Your task to perform on an android device: Show me productivity apps on the Play Store Image 0: 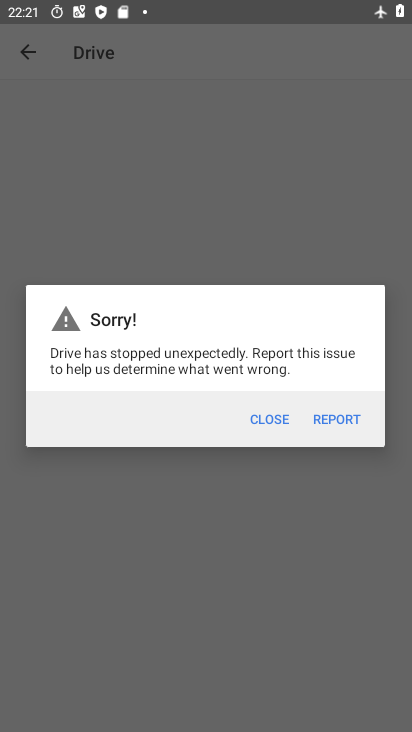
Step 0: press home button
Your task to perform on an android device: Show me productivity apps on the Play Store Image 1: 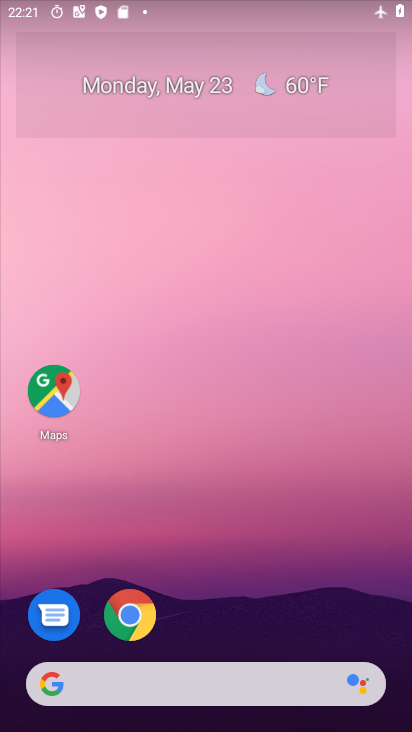
Step 1: drag from (228, 615) to (242, 121)
Your task to perform on an android device: Show me productivity apps on the Play Store Image 2: 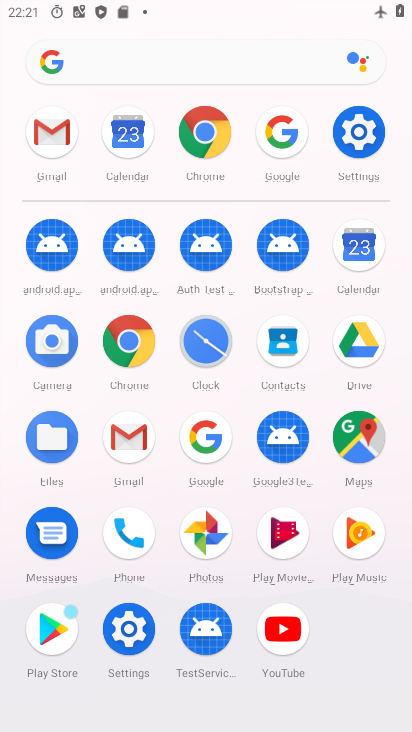
Step 2: click (52, 632)
Your task to perform on an android device: Show me productivity apps on the Play Store Image 3: 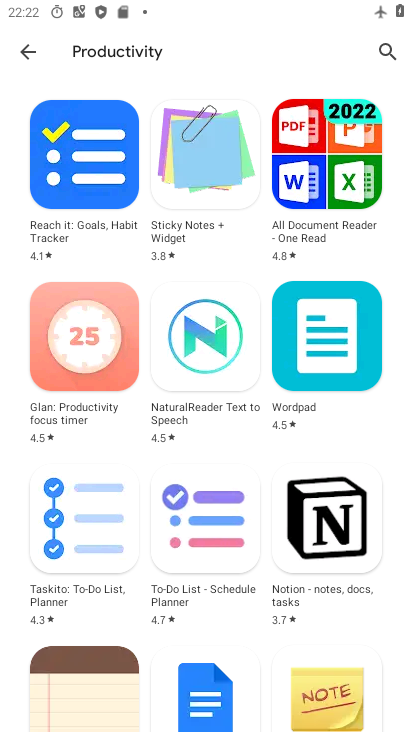
Step 3: task complete